Your task to perform on an android device: find photos in the google photos app Image 0: 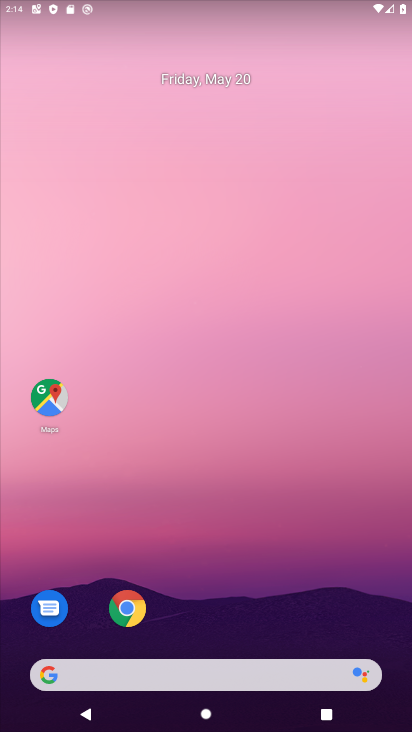
Step 0: drag from (194, 592) to (236, 223)
Your task to perform on an android device: find photos in the google photos app Image 1: 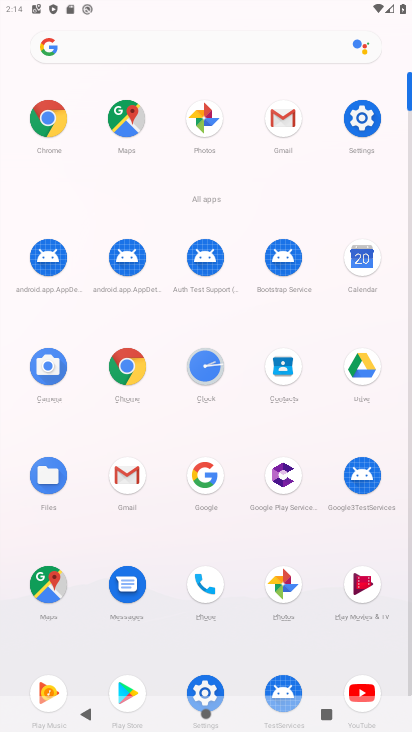
Step 1: click (286, 593)
Your task to perform on an android device: find photos in the google photos app Image 2: 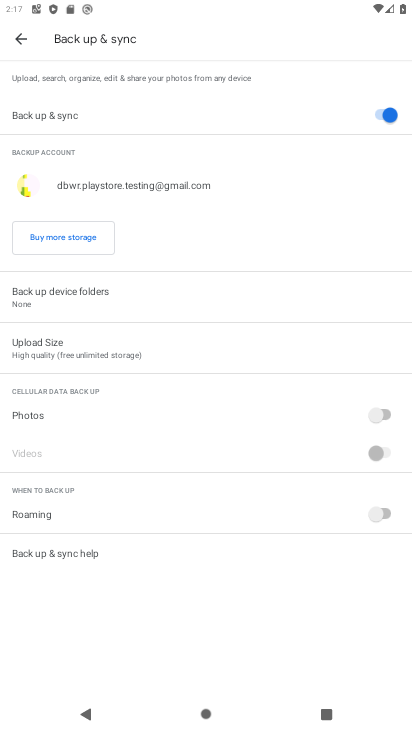
Step 2: task complete